Your task to perform on an android device: Go to display settings Image 0: 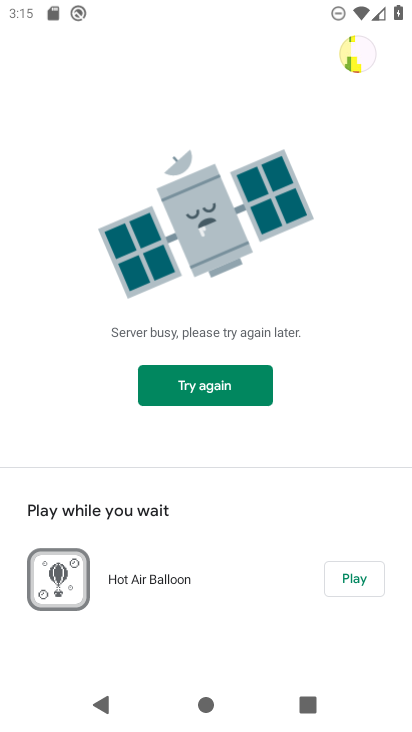
Step 0: press home button
Your task to perform on an android device: Go to display settings Image 1: 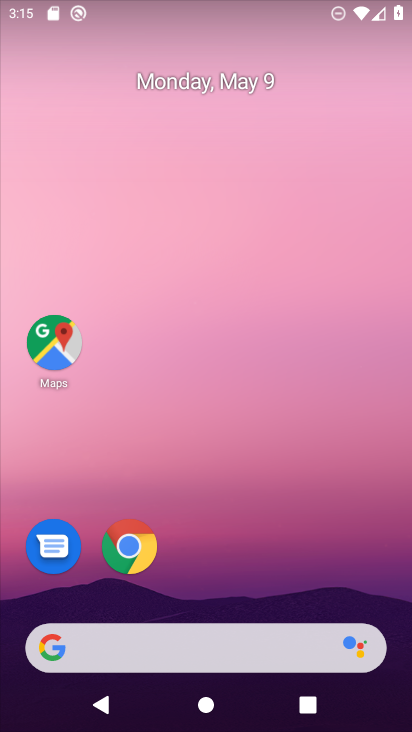
Step 1: drag from (182, 614) to (256, 116)
Your task to perform on an android device: Go to display settings Image 2: 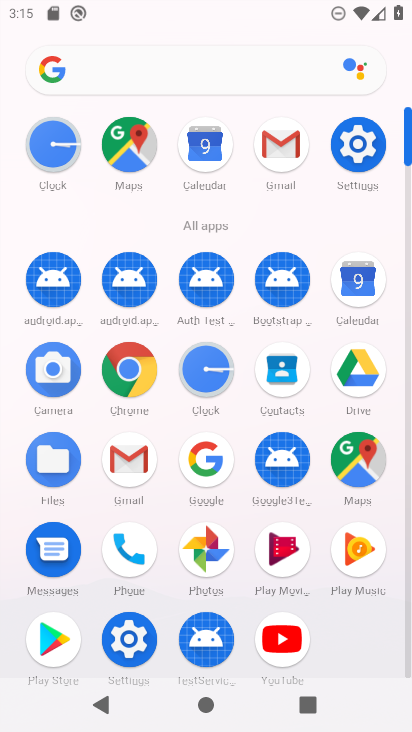
Step 2: click (359, 162)
Your task to perform on an android device: Go to display settings Image 3: 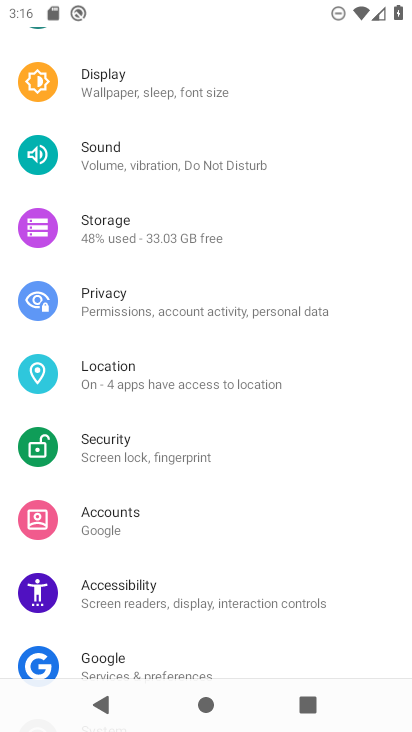
Step 3: click (177, 99)
Your task to perform on an android device: Go to display settings Image 4: 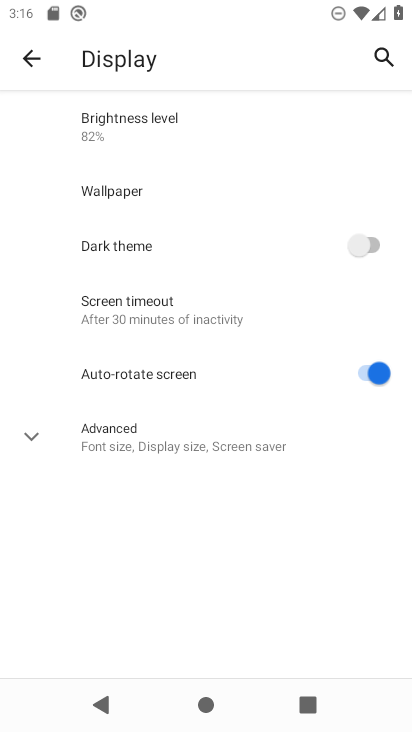
Step 4: task complete